Your task to perform on an android device: see sites visited before in the chrome app Image 0: 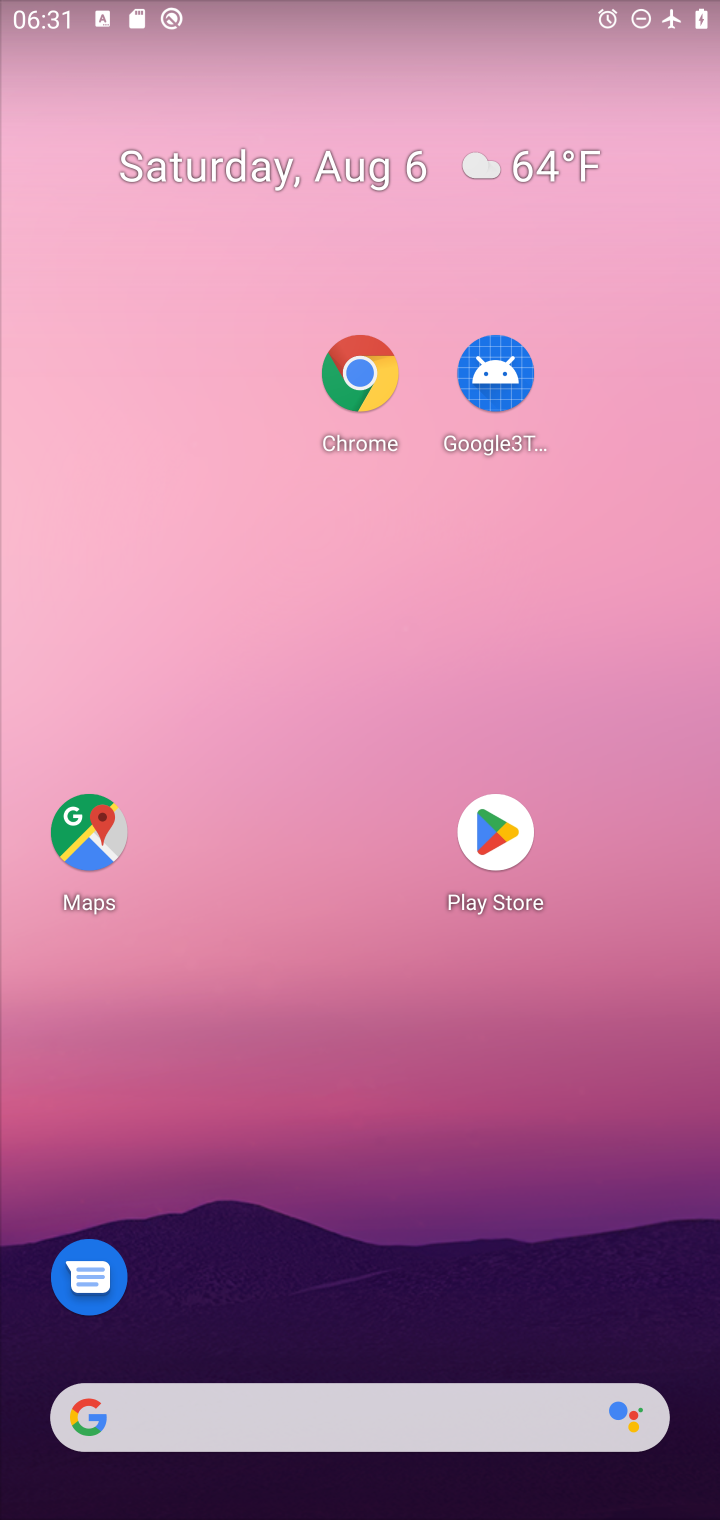
Step 0: drag from (166, 1404) to (92, 43)
Your task to perform on an android device: see sites visited before in the chrome app Image 1: 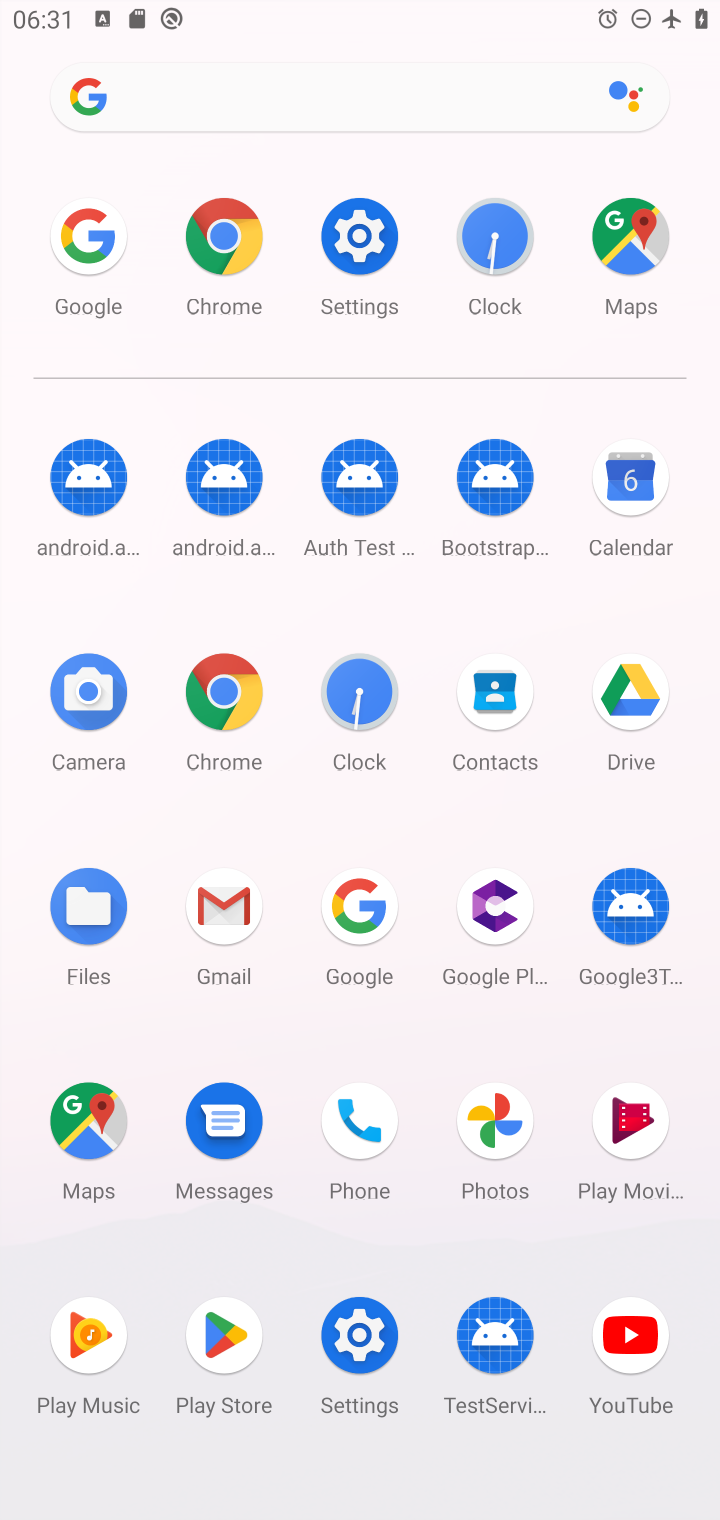
Step 1: click (215, 701)
Your task to perform on an android device: see sites visited before in the chrome app Image 2: 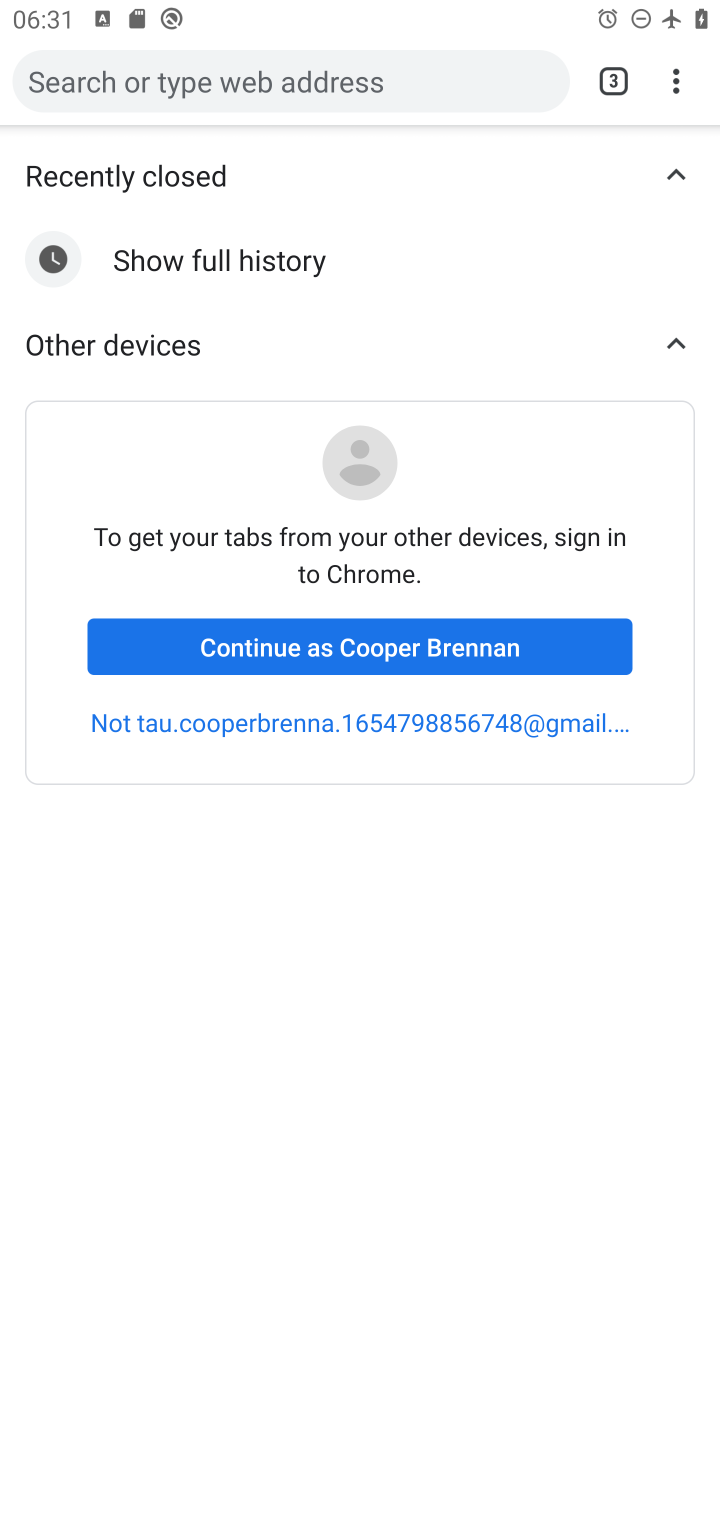
Step 2: click (678, 72)
Your task to perform on an android device: see sites visited before in the chrome app Image 3: 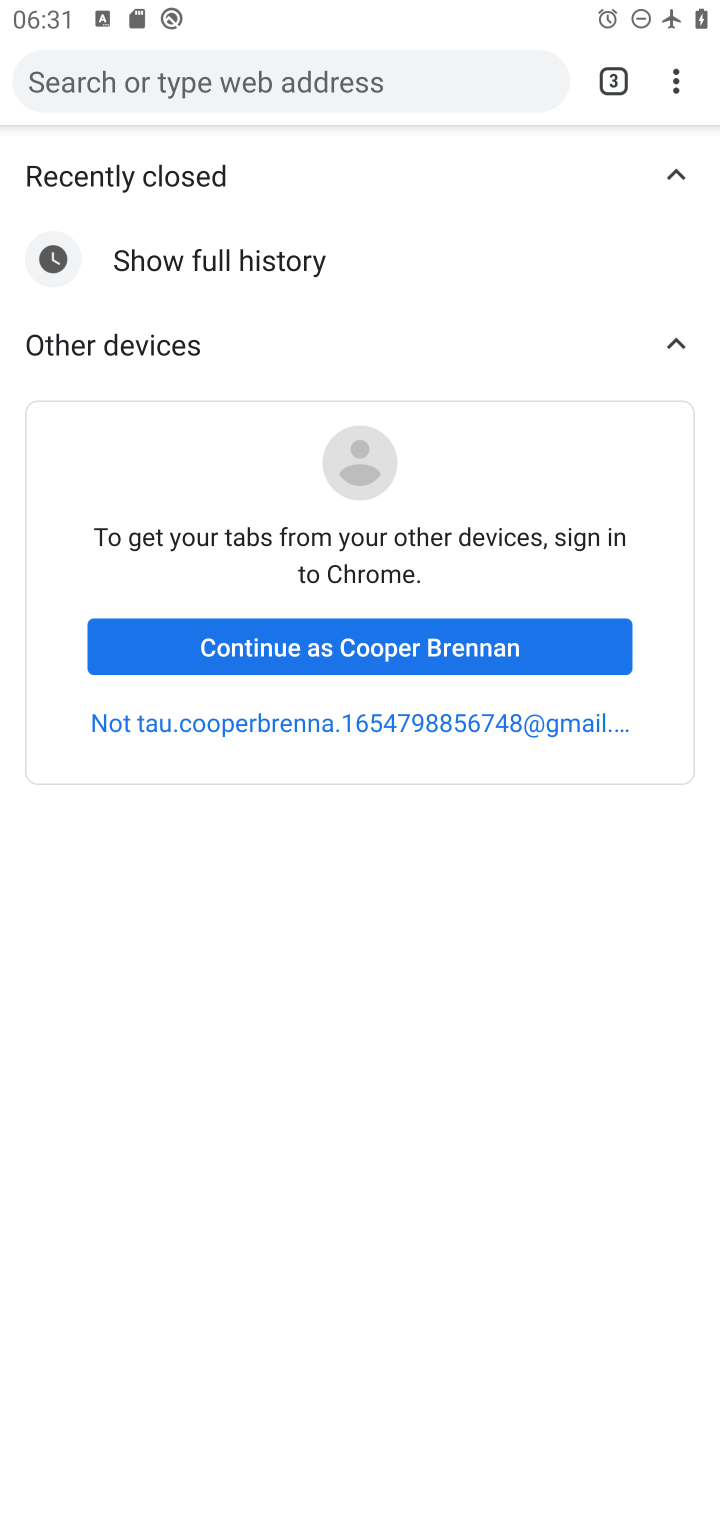
Step 3: click (678, 72)
Your task to perform on an android device: see sites visited before in the chrome app Image 4: 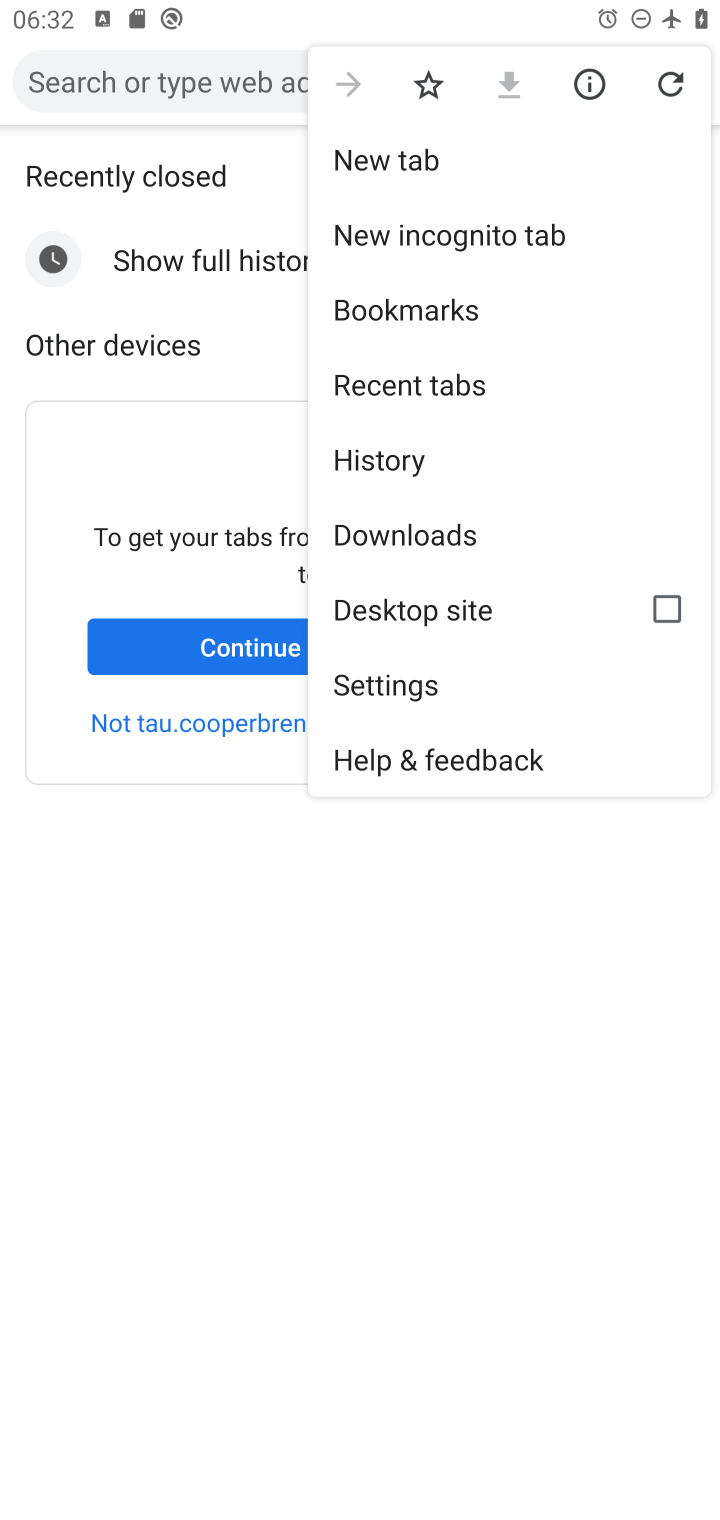
Step 4: click (390, 389)
Your task to perform on an android device: see sites visited before in the chrome app Image 5: 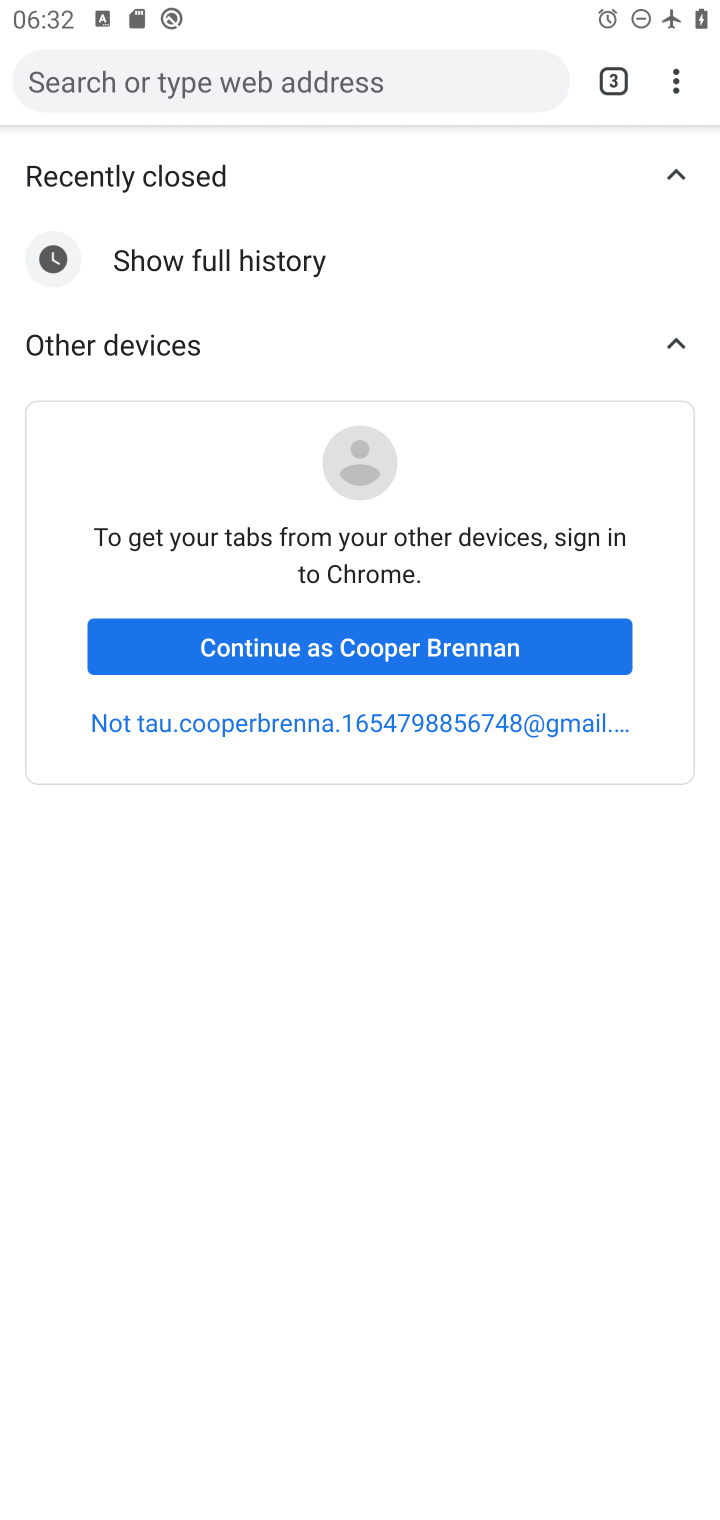
Step 5: task complete